Your task to perform on an android device: turn vacation reply on in the gmail app Image 0: 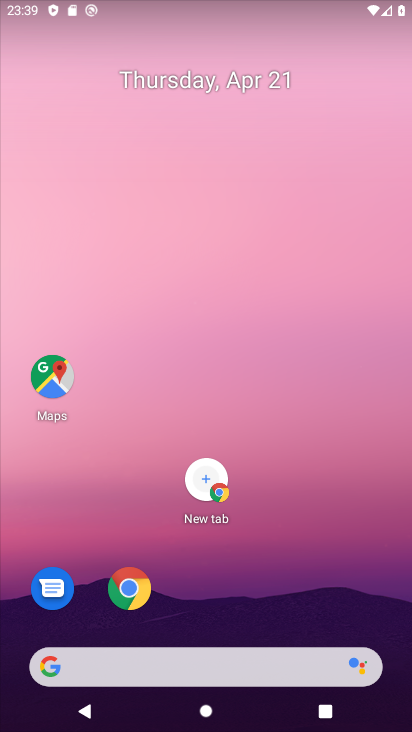
Step 0: drag from (209, 435) to (250, 180)
Your task to perform on an android device: turn vacation reply on in the gmail app Image 1: 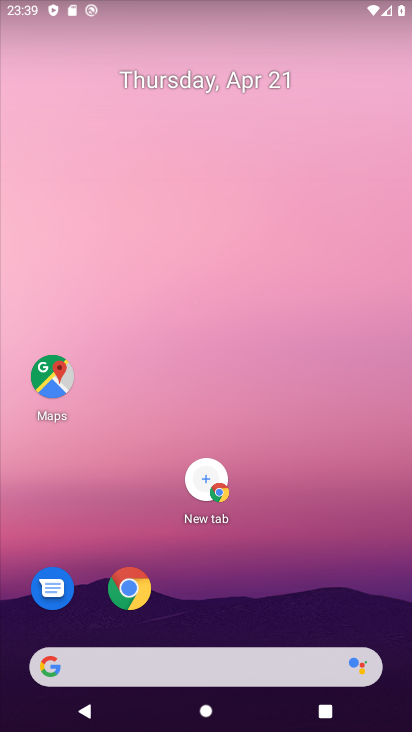
Step 1: drag from (210, 552) to (224, 26)
Your task to perform on an android device: turn vacation reply on in the gmail app Image 2: 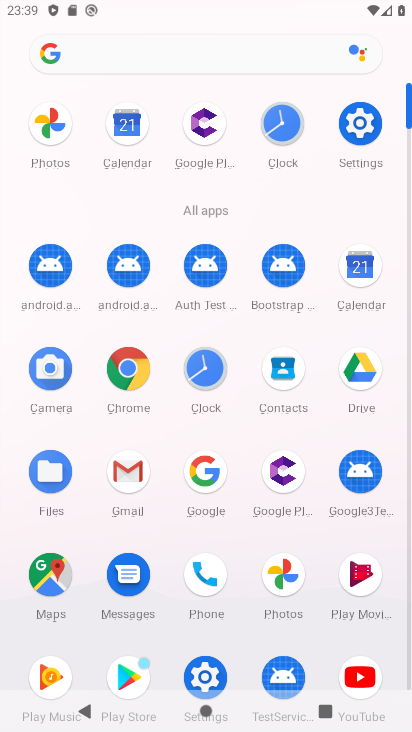
Step 2: click (126, 476)
Your task to perform on an android device: turn vacation reply on in the gmail app Image 3: 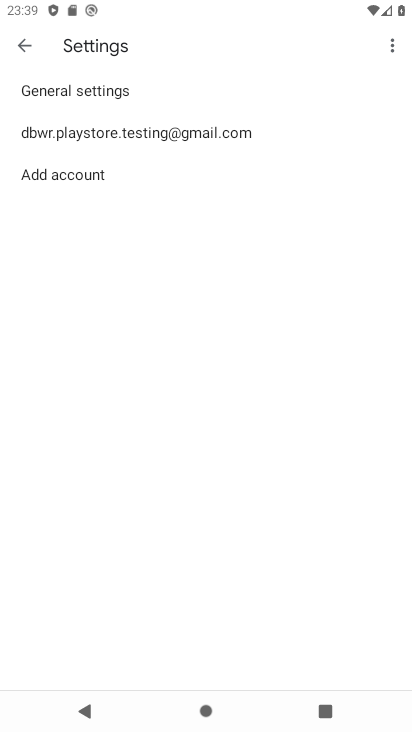
Step 3: click (84, 134)
Your task to perform on an android device: turn vacation reply on in the gmail app Image 4: 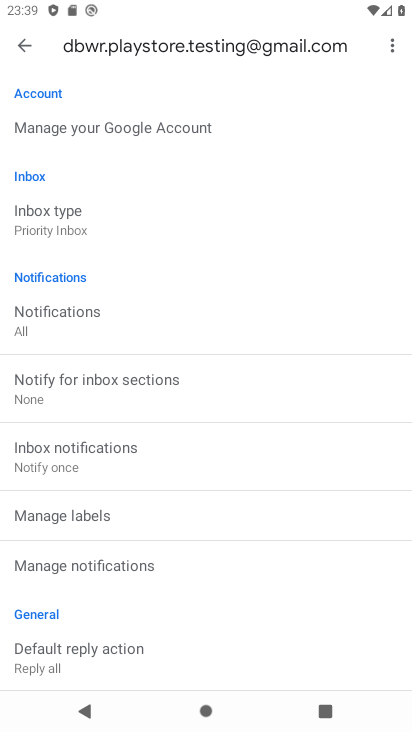
Step 4: drag from (132, 587) to (178, 143)
Your task to perform on an android device: turn vacation reply on in the gmail app Image 5: 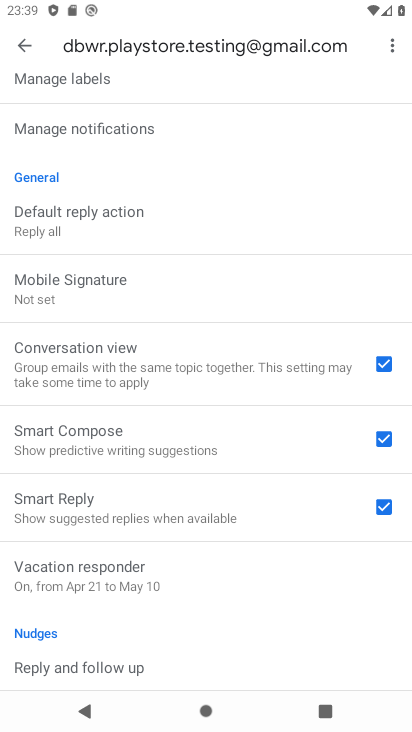
Step 5: click (127, 568)
Your task to perform on an android device: turn vacation reply on in the gmail app Image 6: 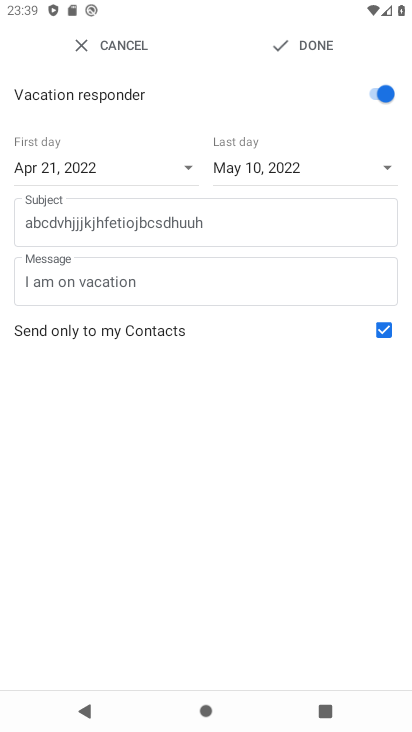
Step 6: task complete